Your task to perform on an android device: refresh tabs in the chrome app Image 0: 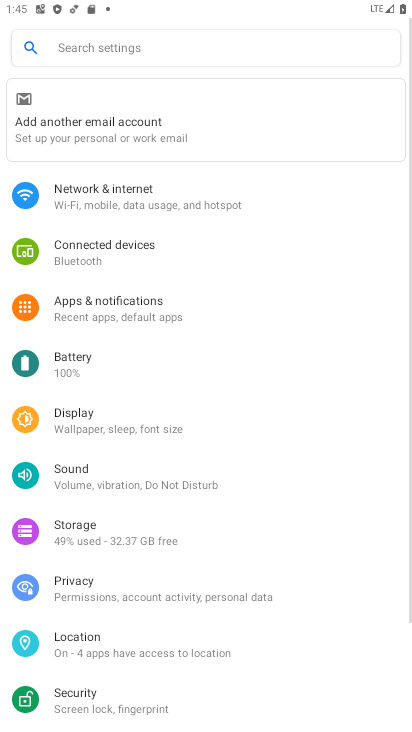
Step 0: press home button
Your task to perform on an android device: refresh tabs in the chrome app Image 1: 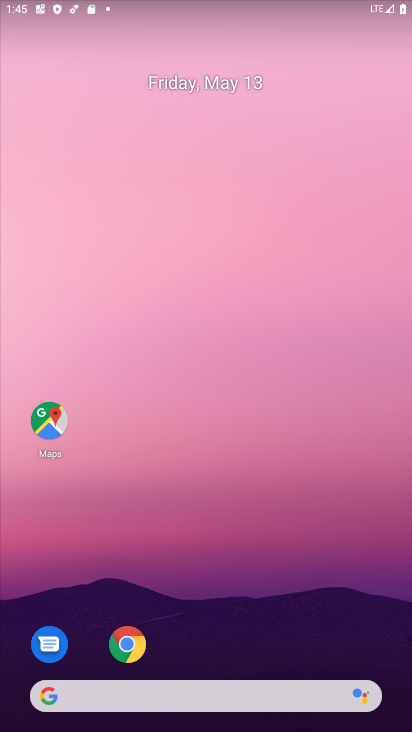
Step 1: drag from (352, 651) to (411, 401)
Your task to perform on an android device: refresh tabs in the chrome app Image 2: 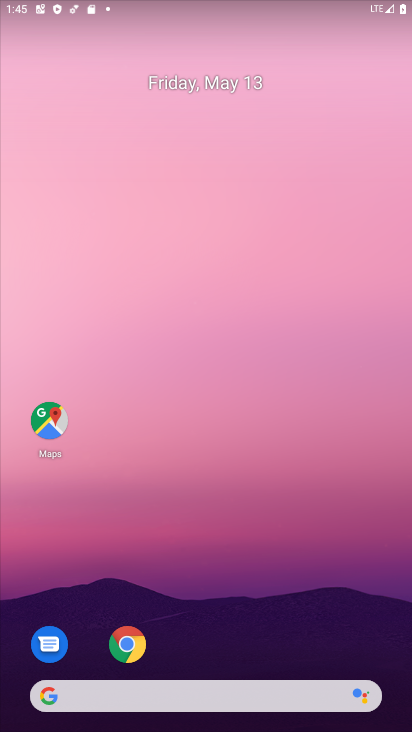
Step 2: click (136, 648)
Your task to perform on an android device: refresh tabs in the chrome app Image 3: 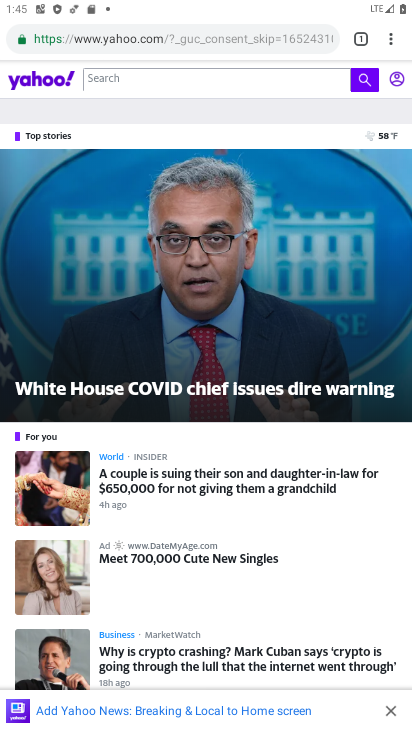
Step 3: press back button
Your task to perform on an android device: refresh tabs in the chrome app Image 4: 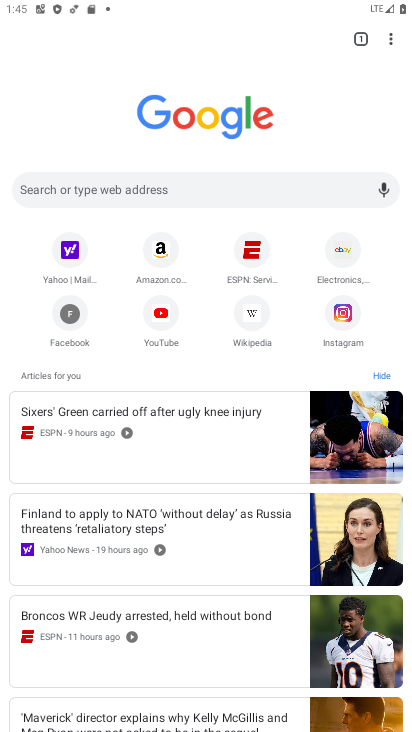
Step 4: click (388, 39)
Your task to perform on an android device: refresh tabs in the chrome app Image 5: 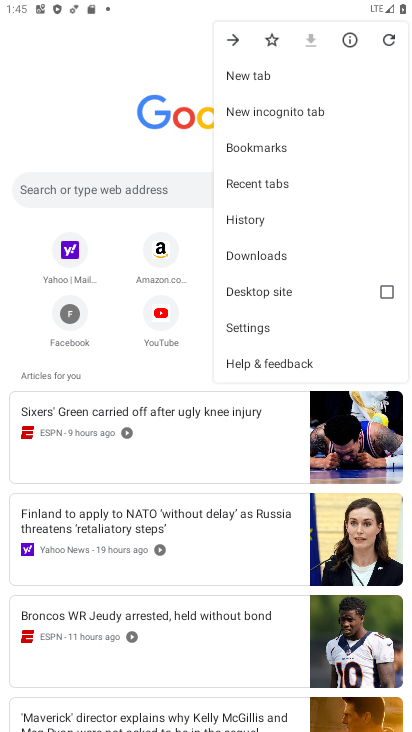
Step 5: click (388, 44)
Your task to perform on an android device: refresh tabs in the chrome app Image 6: 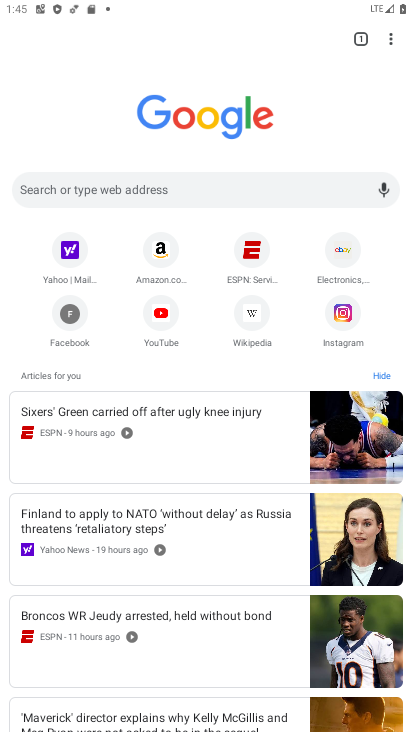
Step 6: task complete